Your task to perform on an android device: Go to display settings Image 0: 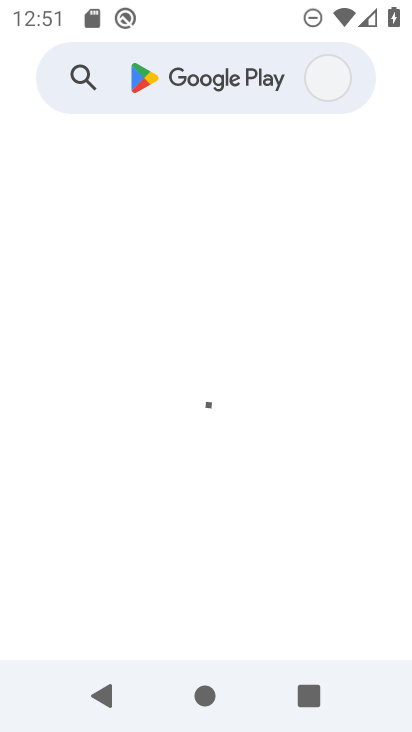
Step 0: press home button
Your task to perform on an android device: Go to display settings Image 1: 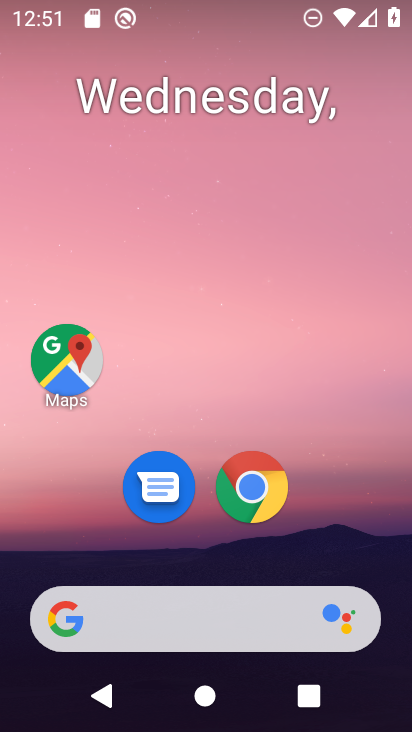
Step 1: drag from (357, 537) to (343, 102)
Your task to perform on an android device: Go to display settings Image 2: 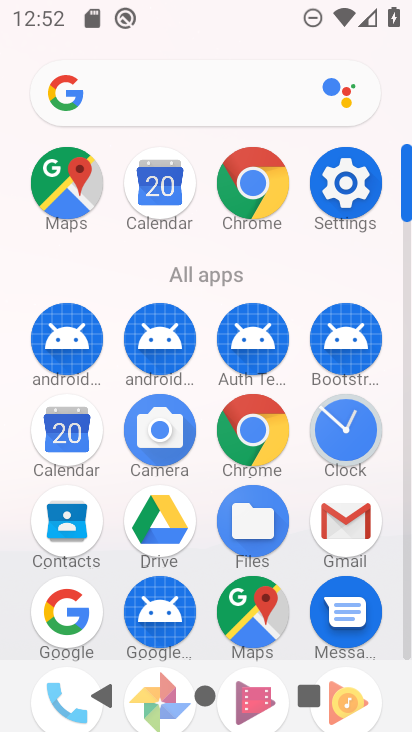
Step 2: click (352, 189)
Your task to perform on an android device: Go to display settings Image 3: 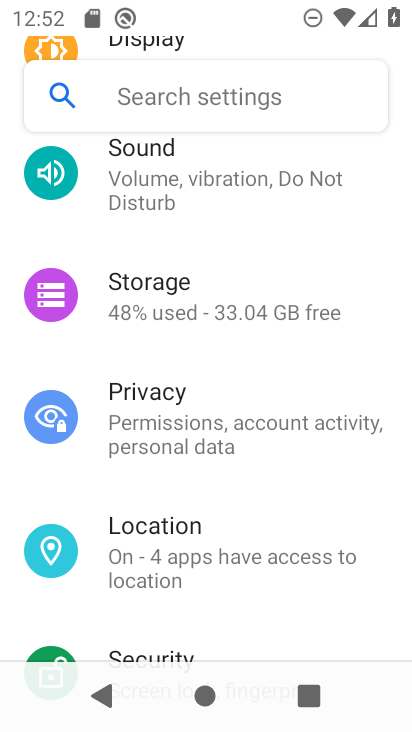
Step 3: drag from (345, 490) to (340, 360)
Your task to perform on an android device: Go to display settings Image 4: 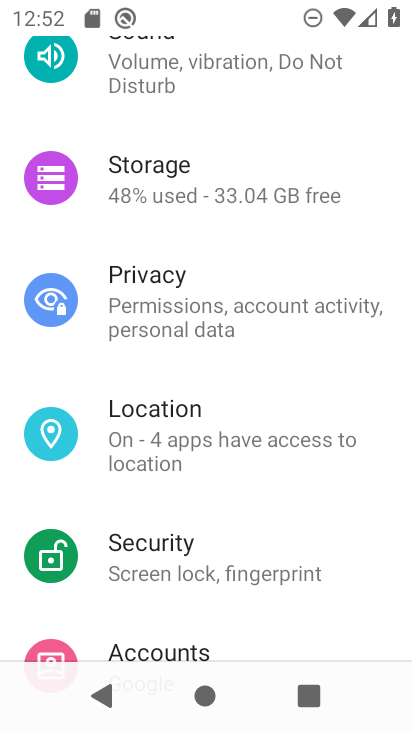
Step 4: drag from (335, 527) to (332, 418)
Your task to perform on an android device: Go to display settings Image 5: 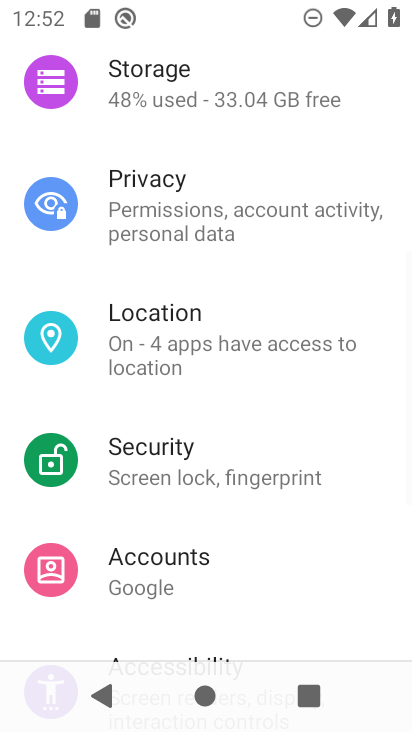
Step 5: drag from (326, 537) to (327, 396)
Your task to perform on an android device: Go to display settings Image 6: 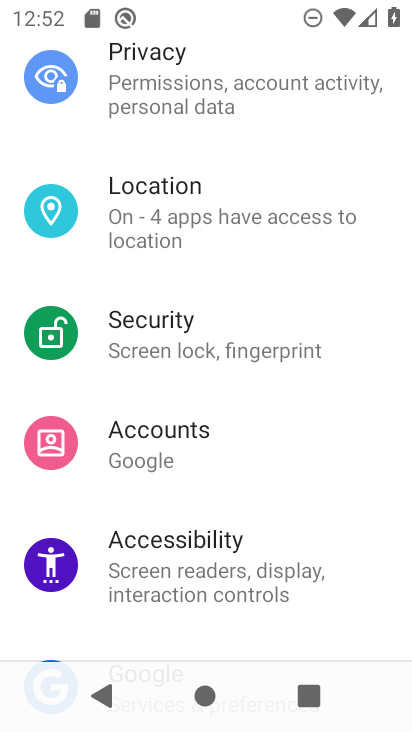
Step 6: drag from (334, 599) to (334, 427)
Your task to perform on an android device: Go to display settings Image 7: 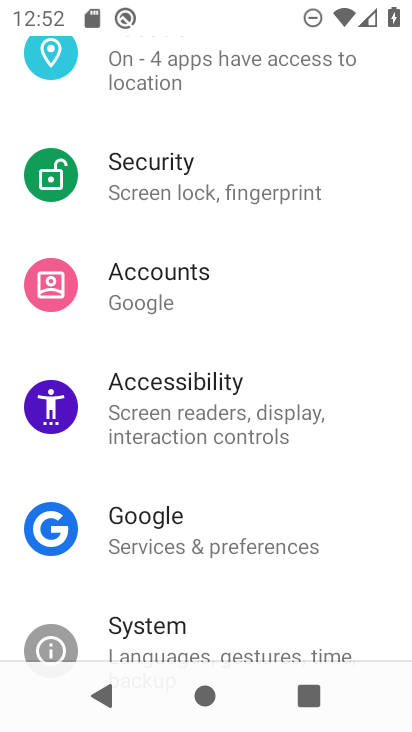
Step 7: drag from (345, 317) to (356, 463)
Your task to perform on an android device: Go to display settings Image 8: 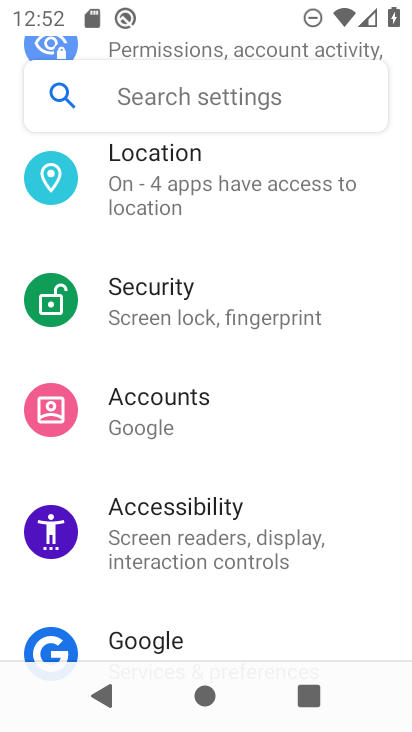
Step 8: drag from (358, 302) to (356, 463)
Your task to perform on an android device: Go to display settings Image 9: 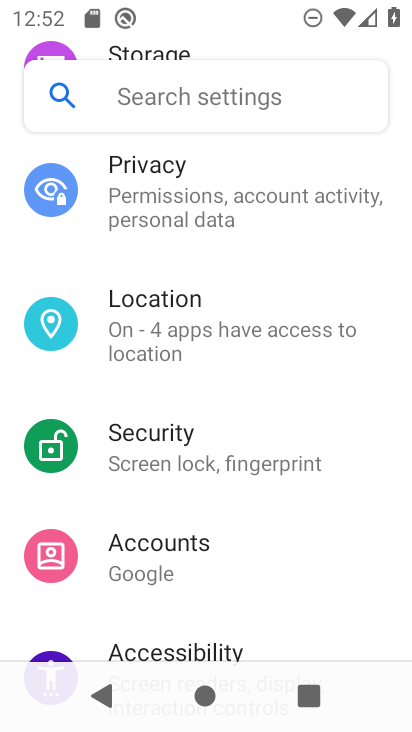
Step 9: drag from (369, 283) to (370, 430)
Your task to perform on an android device: Go to display settings Image 10: 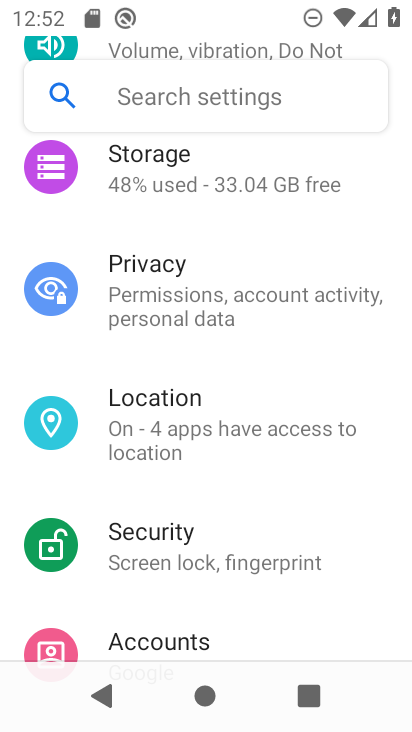
Step 10: drag from (367, 268) to (366, 408)
Your task to perform on an android device: Go to display settings Image 11: 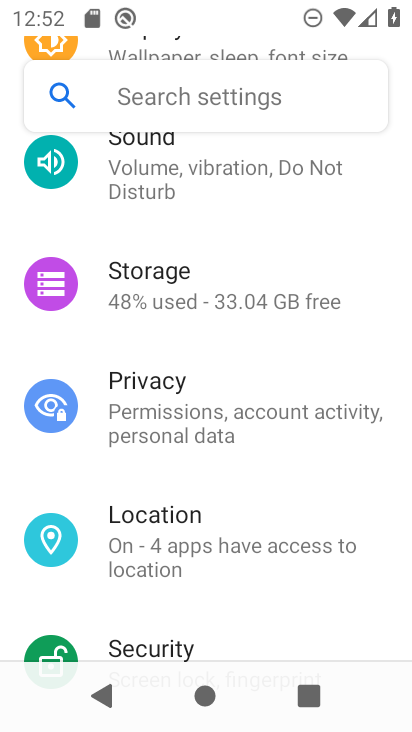
Step 11: drag from (365, 253) to (363, 394)
Your task to perform on an android device: Go to display settings Image 12: 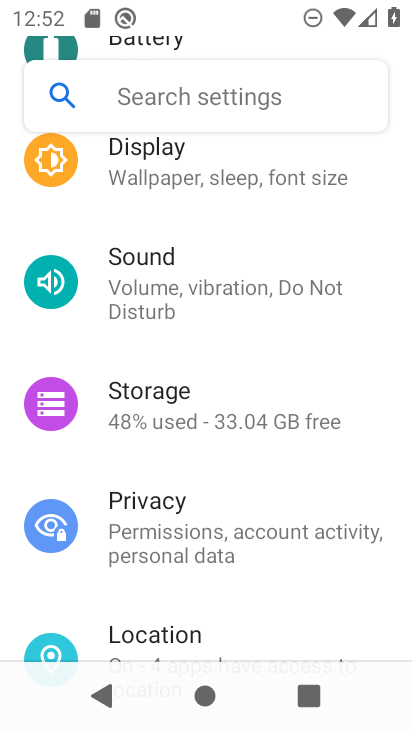
Step 12: drag from (373, 242) to (361, 373)
Your task to perform on an android device: Go to display settings Image 13: 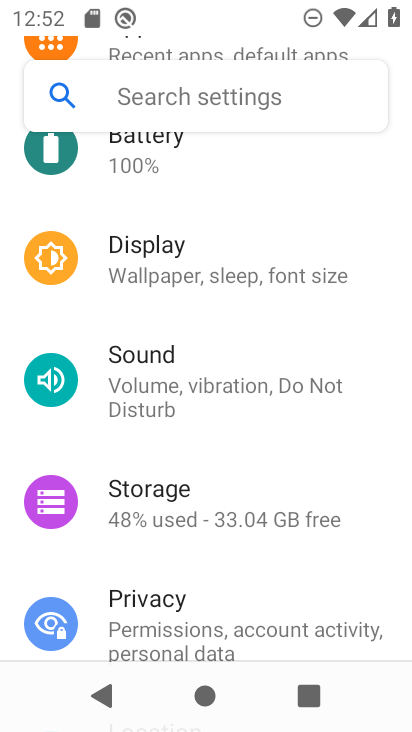
Step 13: drag from (357, 208) to (358, 284)
Your task to perform on an android device: Go to display settings Image 14: 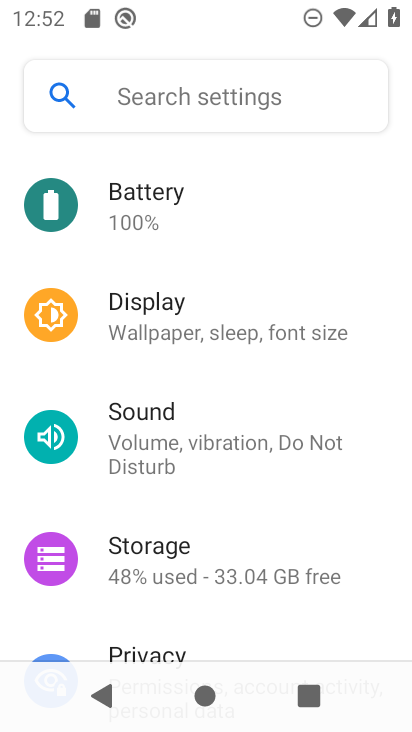
Step 14: click (242, 338)
Your task to perform on an android device: Go to display settings Image 15: 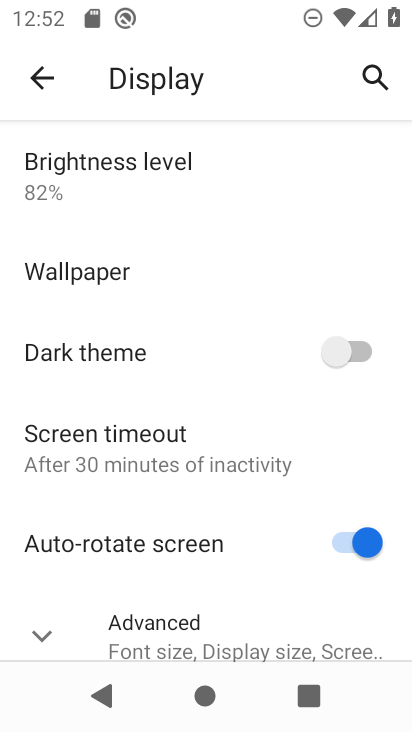
Step 15: drag from (263, 568) to (270, 455)
Your task to perform on an android device: Go to display settings Image 16: 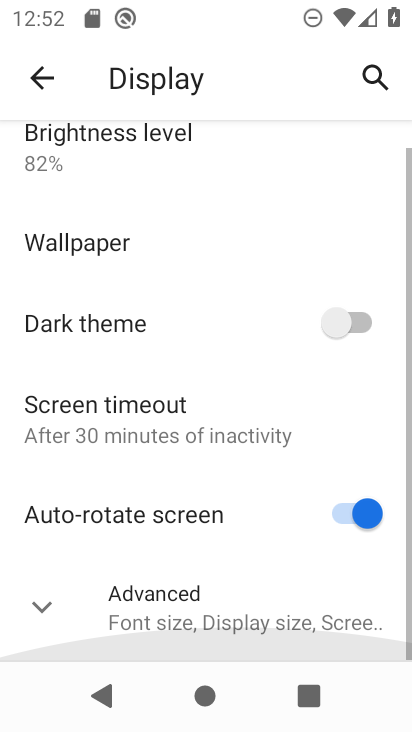
Step 16: click (264, 604)
Your task to perform on an android device: Go to display settings Image 17: 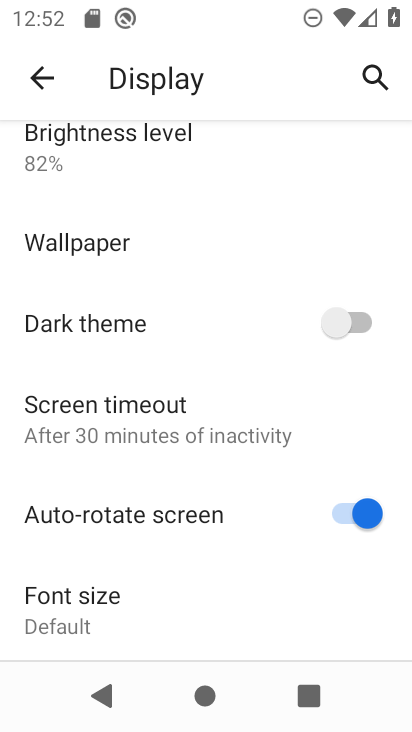
Step 17: task complete